Your task to perform on an android device: delete location history Image 0: 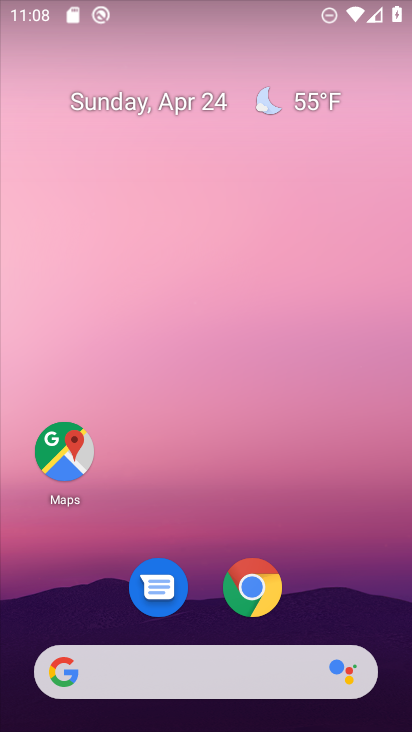
Step 0: drag from (338, 594) to (320, 143)
Your task to perform on an android device: delete location history Image 1: 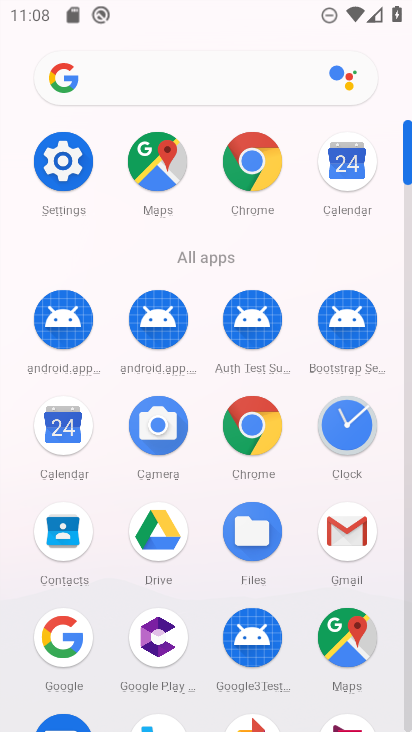
Step 1: click (349, 642)
Your task to perform on an android device: delete location history Image 2: 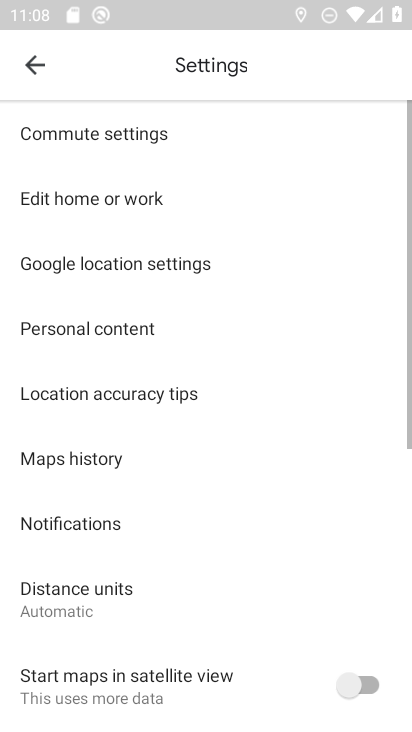
Step 2: click (112, 464)
Your task to perform on an android device: delete location history Image 3: 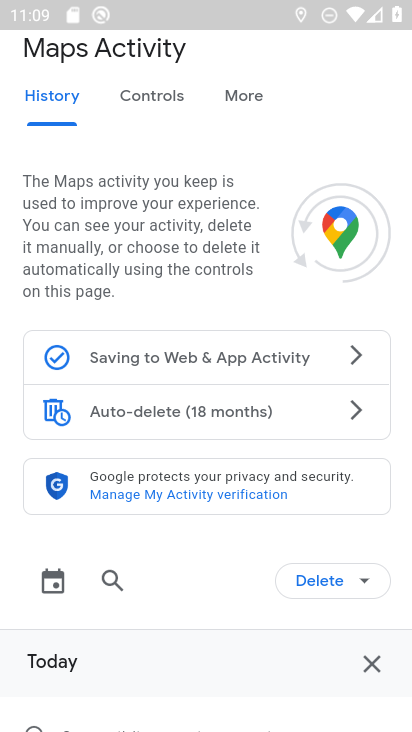
Step 3: click (367, 580)
Your task to perform on an android device: delete location history Image 4: 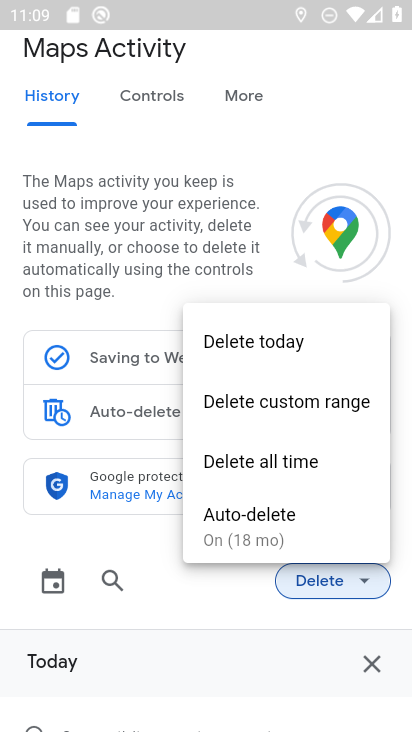
Step 4: click (280, 457)
Your task to perform on an android device: delete location history Image 5: 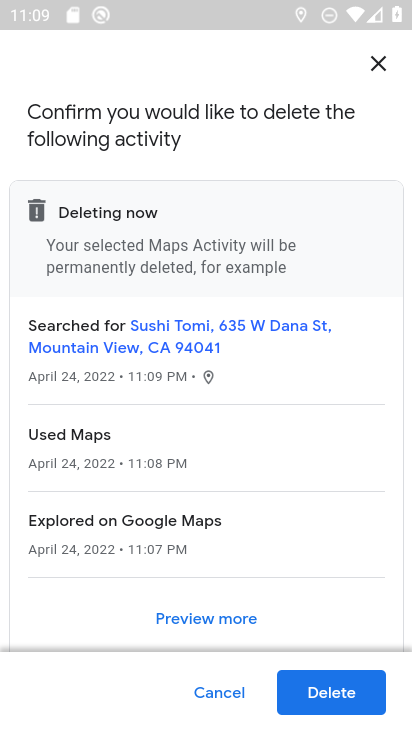
Step 5: click (366, 700)
Your task to perform on an android device: delete location history Image 6: 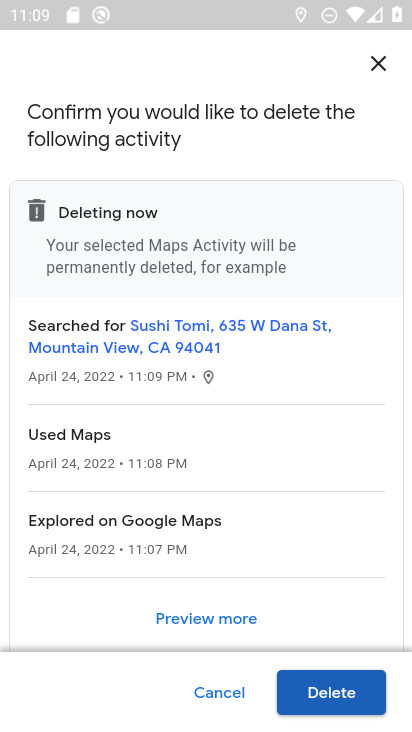
Step 6: click (362, 693)
Your task to perform on an android device: delete location history Image 7: 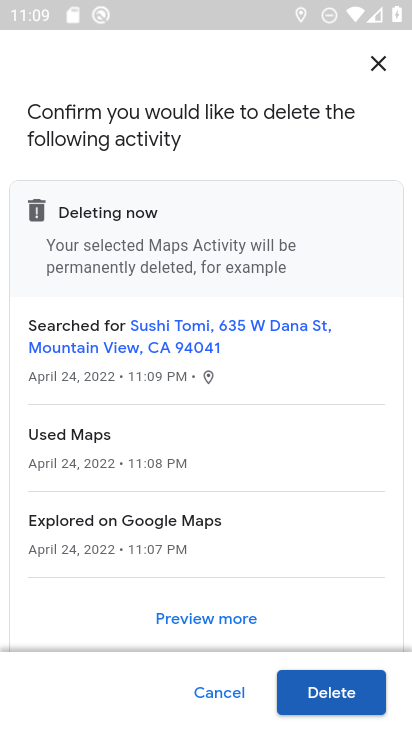
Step 7: click (360, 688)
Your task to perform on an android device: delete location history Image 8: 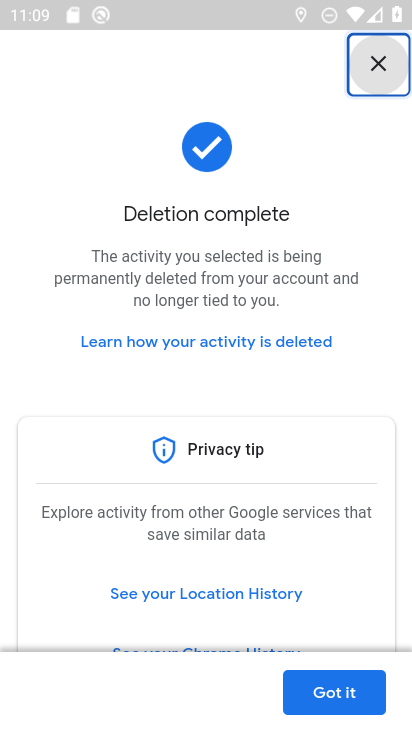
Step 8: task complete